Your task to perform on an android device: open app "Adobe Acrobat Reader: Edit PDF" (install if not already installed), go to login, and select forgot password Image 0: 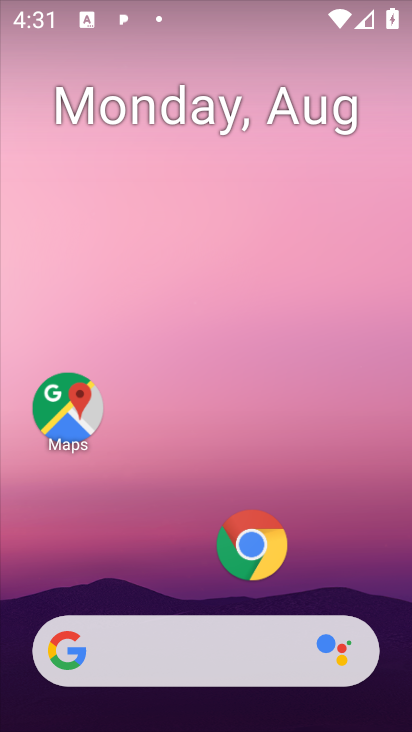
Step 0: drag from (157, 553) to (216, 20)
Your task to perform on an android device: open app "Adobe Acrobat Reader: Edit PDF" (install if not already installed), go to login, and select forgot password Image 1: 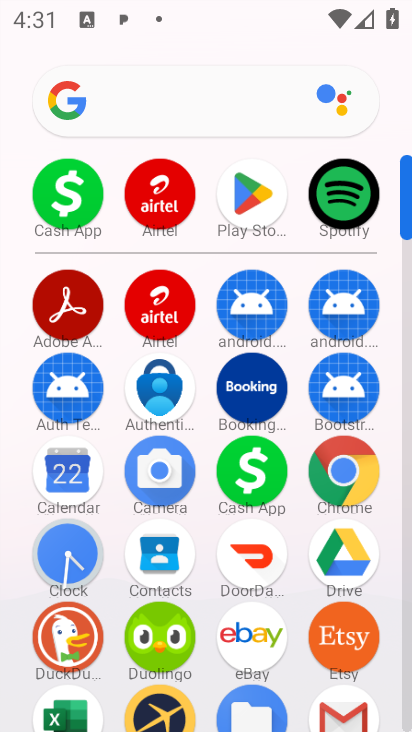
Step 1: click (67, 328)
Your task to perform on an android device: open app "Adobe Acrobat Reader: Edit PDF" (install if not already installed), go to login, and select forgot password Image 2: 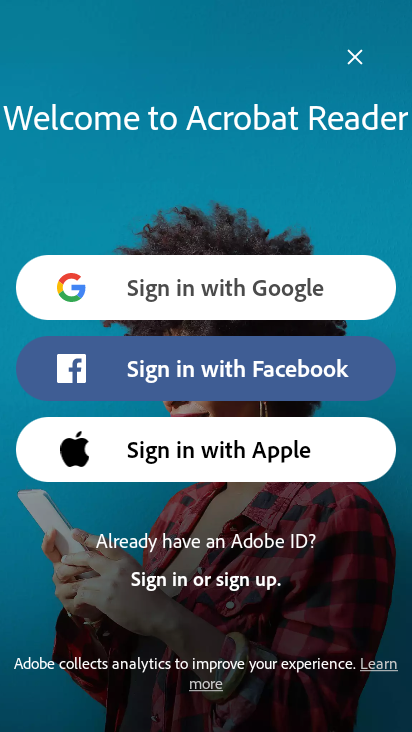
Step 2: task complete